Your task to perform on an android device: Show me popular games on the Play Store Image 0: 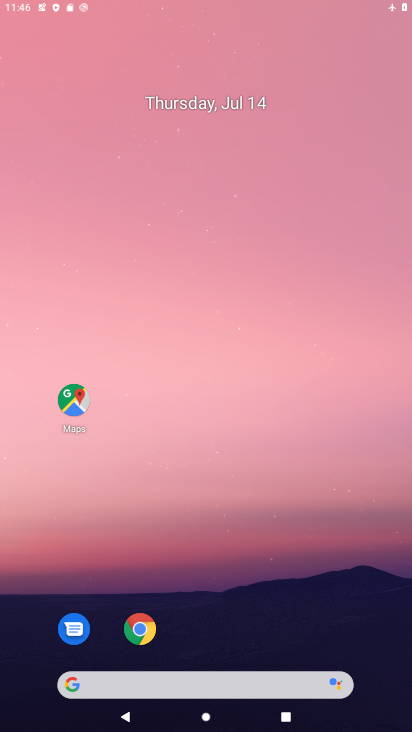
Step 0: press home button
Your task to perform on an android device: Show me popular games on the Play Store Image 1: 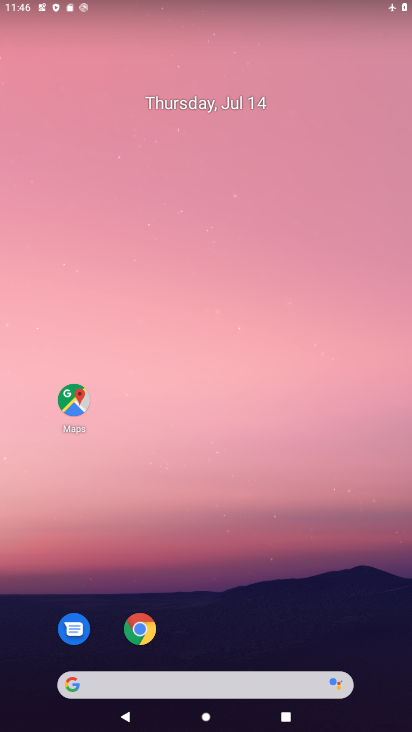
Step 1: drag from (261, 636) to (257, 106)
Your task to perform on an android device: Show me popular games on the Play Store Image 2: 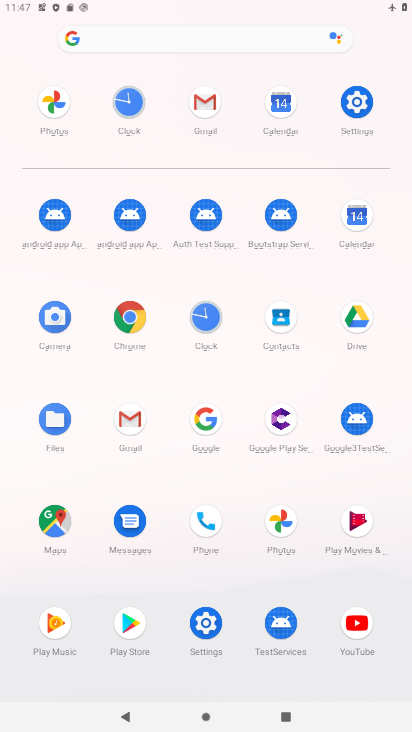
Step 2: click (128, 628)
Your task to perform on an android device: Show me popular games on the Play Store Image 3: 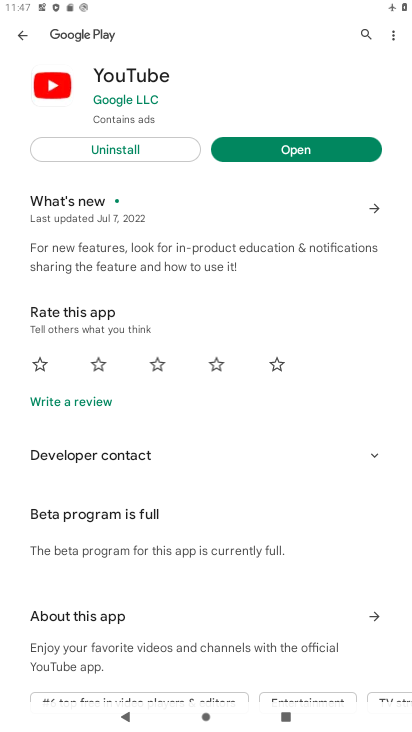
Step 3: press back button
Your task to perform on an android device: Show me popular games on the Play Store Image 4: 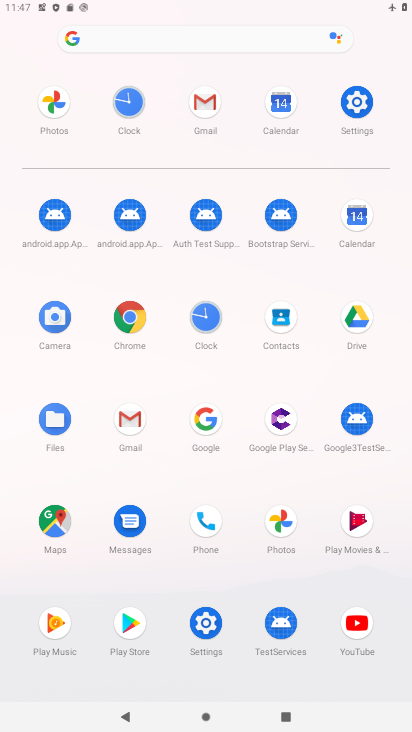
Step 4: click (120, 629)
Your task to perform on an android device: Show me popular games on the Play Store Image 5: 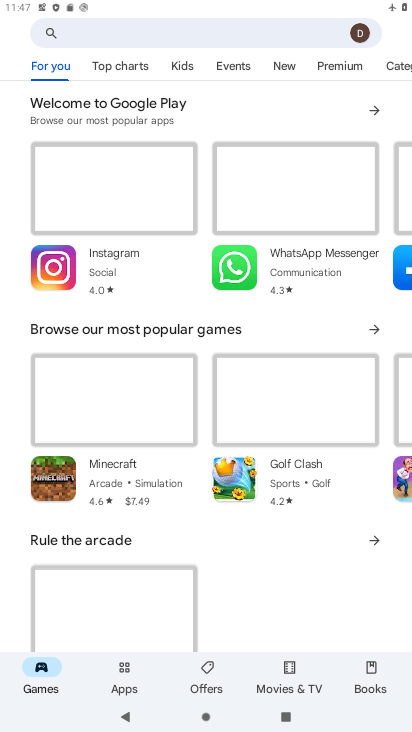
Step 5: click (40, 670)
Your task to perform on an android device: Show me popular games on the Play Store Image 6: 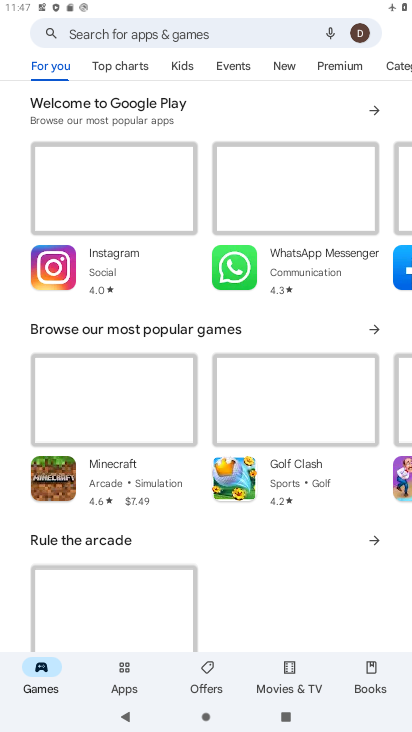
Step 6: click (405, 66)
Your task to perform on an android device: Show me popular games on the Play Store Image 7: 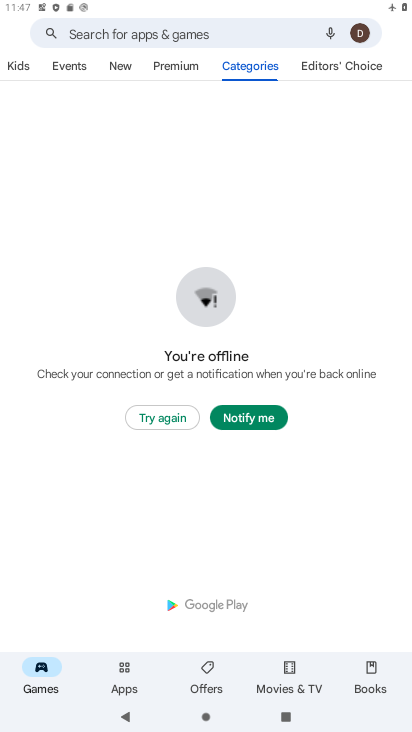
Step 7: click (147, 424)
Your task to perform on an android device: Show me popular games on the Play Store Image 8: 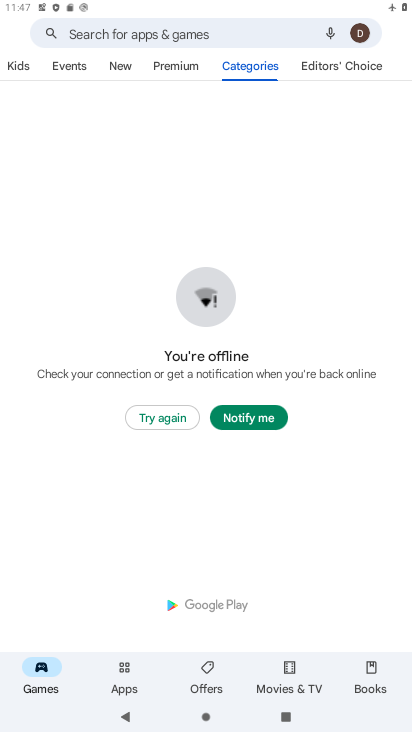
Step 8: click (147, 424)
Your task to perform on an android device: Show me popular games on the Play Store Image 9: 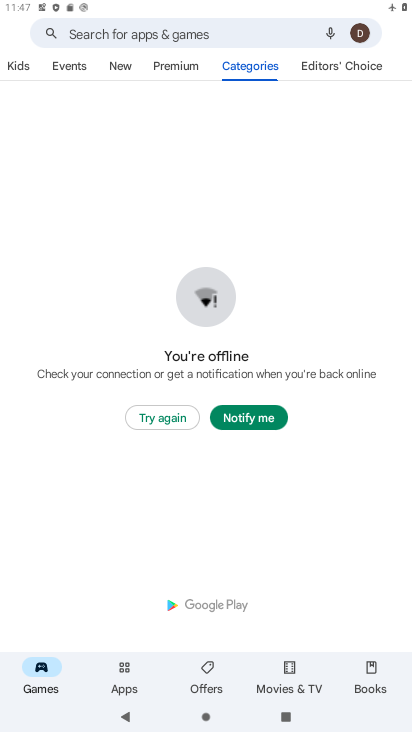
Step 9: click (166, 417)
Your task to perform on an android device: Show me popular games on the Play Store Image 10: 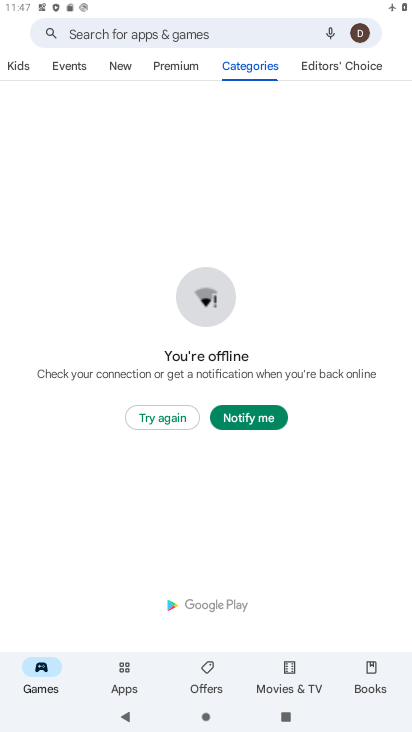
Step 10: click (166, 417)
Your task to perform on an android device: Show me popular games on the Play Store Image 11: 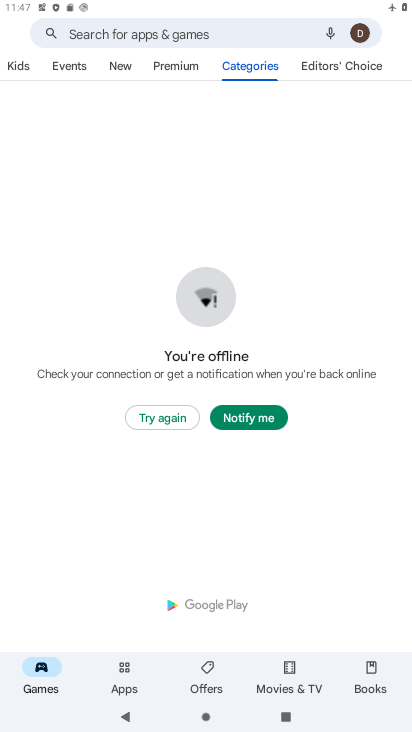
Step 11: task complete